Your task to perform on an android device: clear history in the chrome app Image 0: 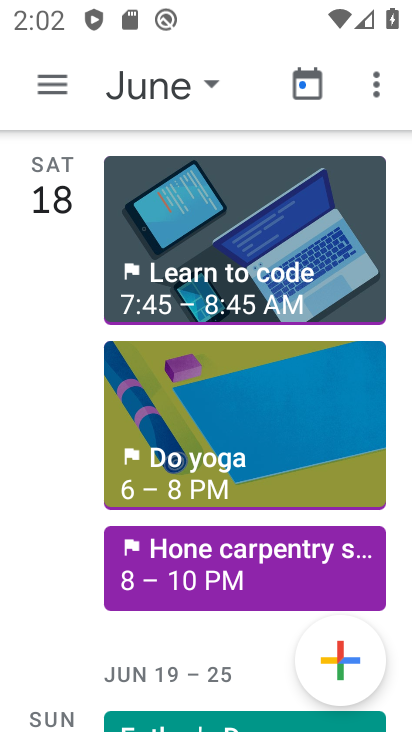
Step 0: press back button
Your task to perform on an android device: clear history in the chrome app Image 1: 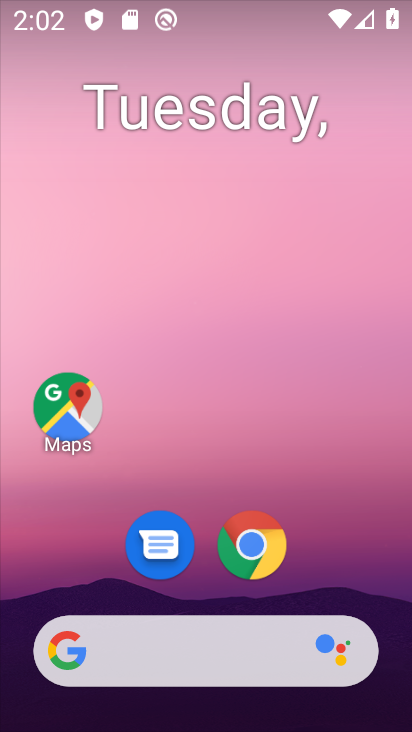
Step 1: drag from (329, 541) to (257, 0)
Your task to perform on an android device: clear history in the chrome app Image 2: 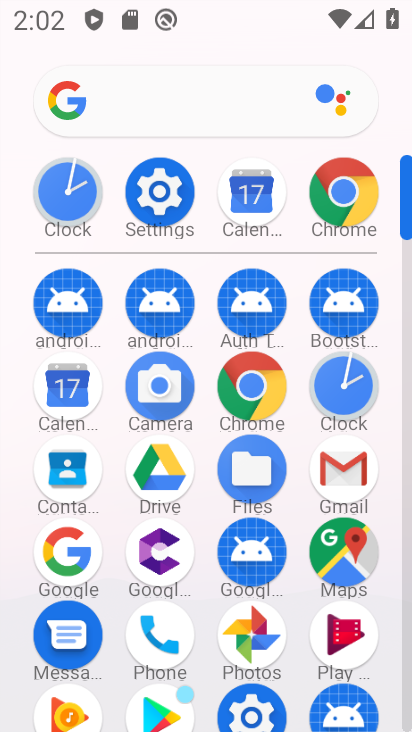
Step 2: click (251, 379)
Your task to perform on an android device: clear history in the chrome app Image 3: 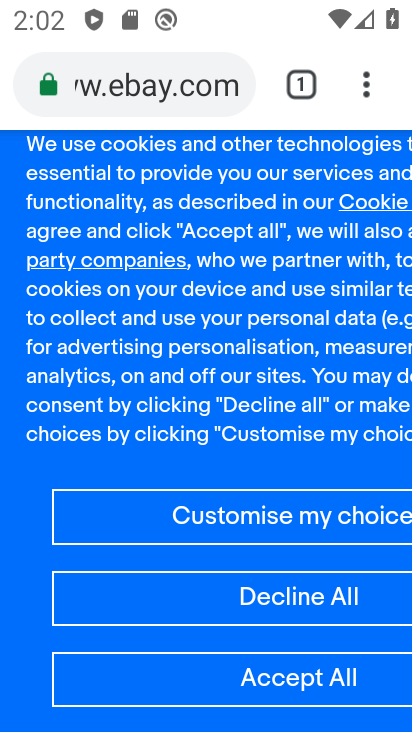
Step 3: click (279, 682)
Your task to perform on an android device: clear history in the chrome app Image 4: 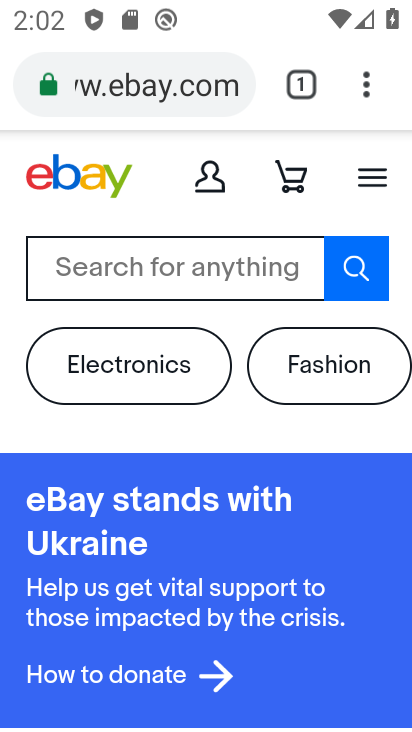
Step 4: drag from (362, 87) to (141, 330)
Your task to perform on an android device: clear history in the chrome app Image 5: 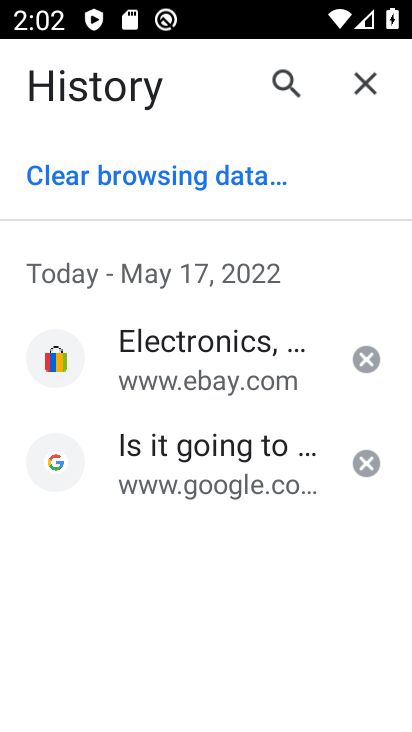
Step 5: click (147, 166)
Your task to perform on an android device: clear history in the chrome app Image 6: 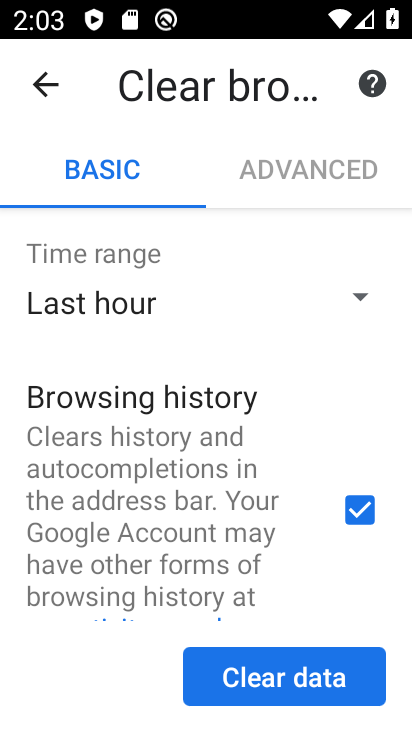
Step 6: click (314, 664)
Your task to perform on an android device: clear history in the chrome app Image 7: 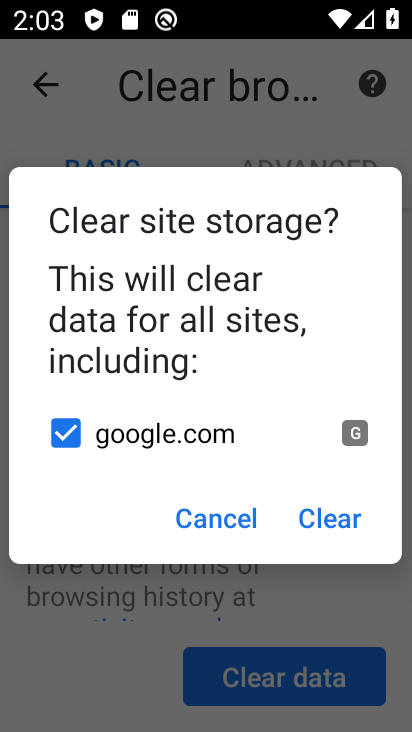
Step 7: click (319, 513)
Your task to perform on an android device: clear history in the chrome app Image 8: 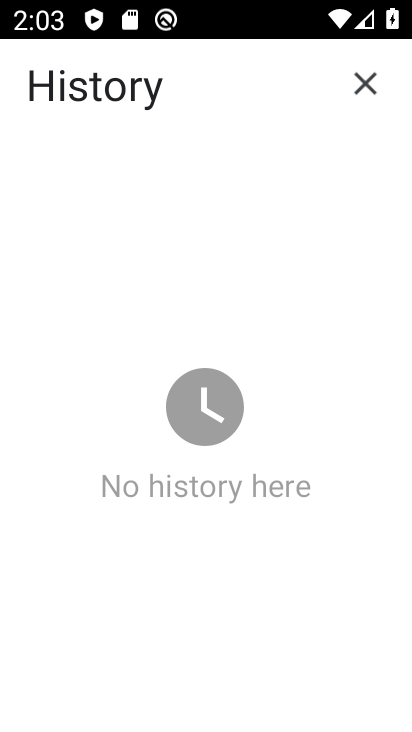
Step 8: task complete